Your task to perform on an android device: find snoozed emails in the gmail app Image 0: 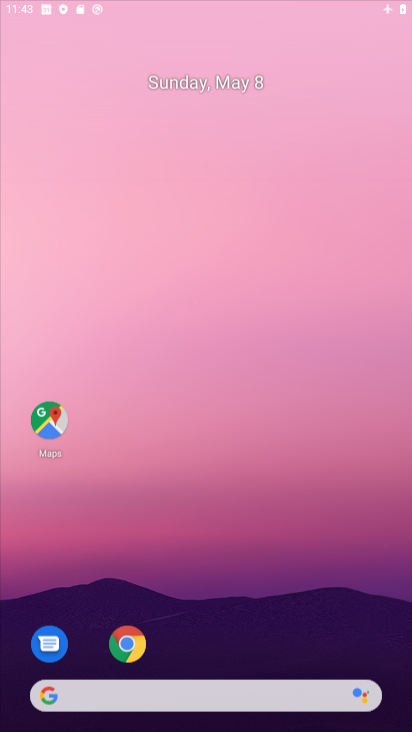
Step 0: click (202, 254)
Your task to perform on an android device: find snoozed emails in the gmail app Image 1: 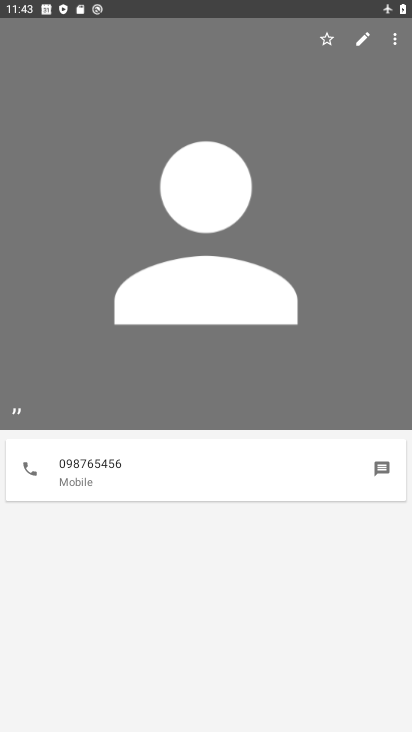
Step 1: press home button
Your task to perform on an android device: find snoozed emails in the gmail app Image 2: 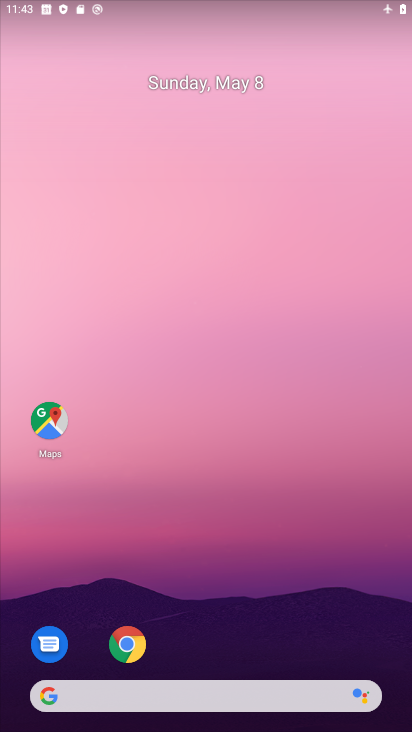
Step 2: drag from (193, 622) to (217, 131)
Your task to perform on an android device: find snoozed emails in the gmail app Image 3: 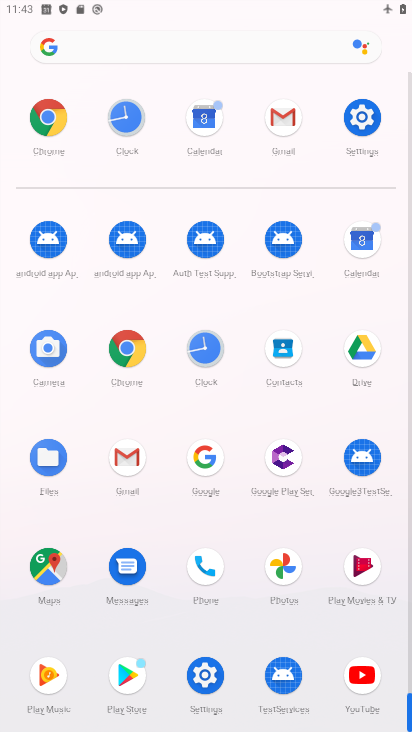
Step 3: click (126, 457)
Your task to perform on an android device: find snoozed emails in the gmail app Image 4: 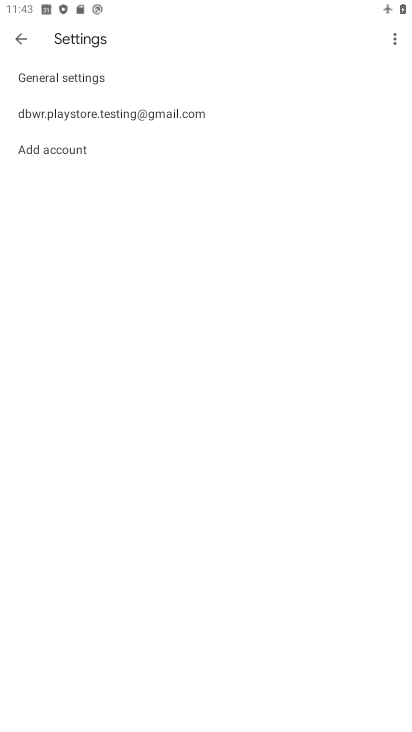
Step 4: click (124, 109)
Your task to perform on an android device: find snoozed emails in the gmail app Image 5: 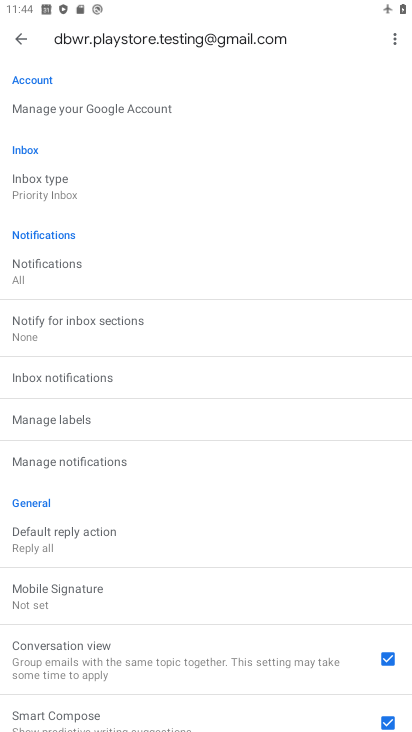
Step 5: click (26, 37)
Your task to perform on an android device: find snoozed emails in the gmail app Image 6: 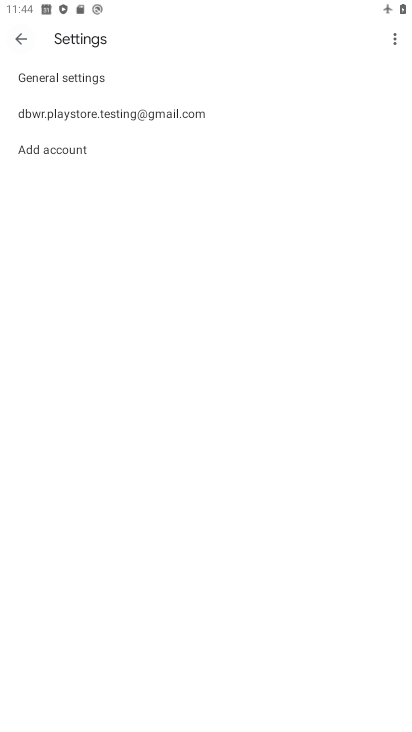
Step 6: click (26, 37)
Your task to perform on an android device: find snoozed emails in the gmail app Image 7: 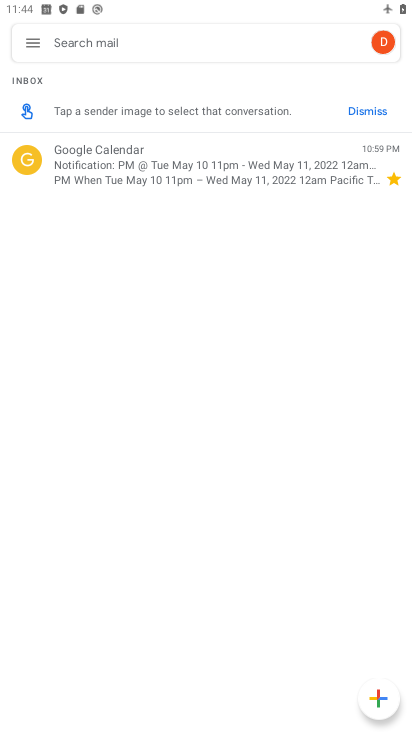
Step 7: click (26, 37)
Your task to perform on an android device: find snoozed emails in the gmail app Image 8: 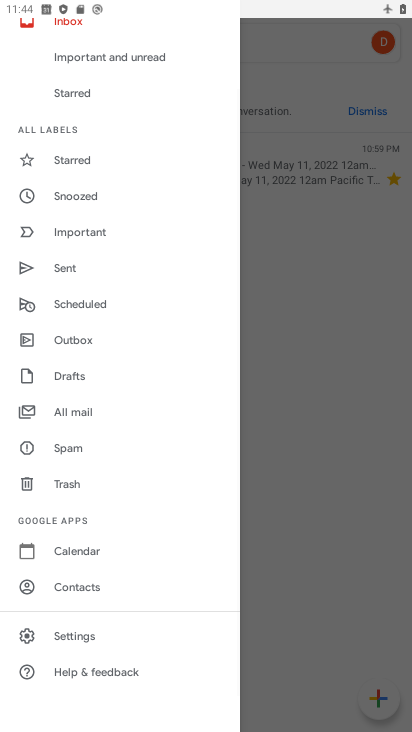
Step 8: click (70, 199)
Your task to perform on an android device: find snoozed emails in the gmail app Image 9: 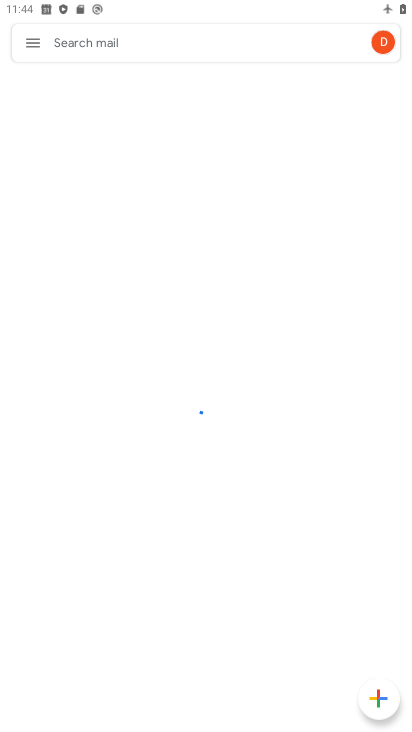
Step 9: task complete